Your task to perform on an android device: change the clock display to show seconds Image 0: 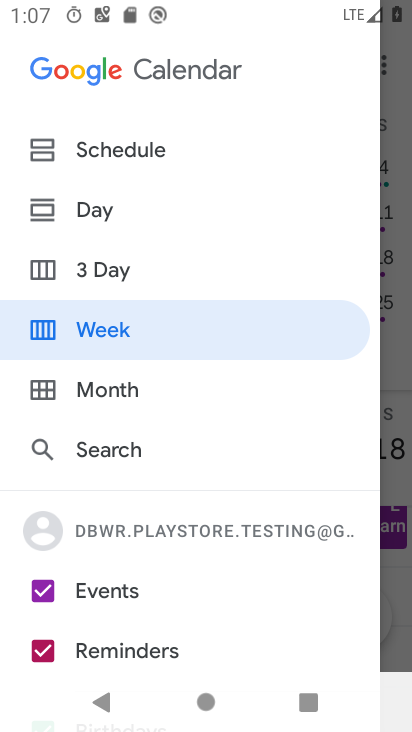
Step 0: press home button
Your task to perform on an android device: change the clock display to show seconds Image 1: 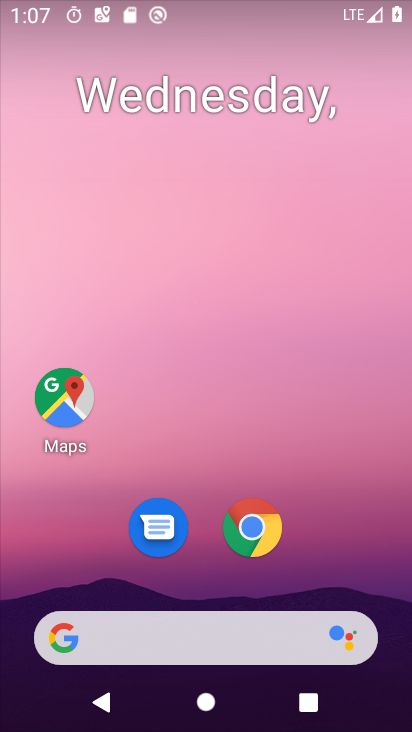
Step 1: drag from (296, 651) to (334, 3)
Your task to perform on an android device: change the clock display to show seconds Image 2: 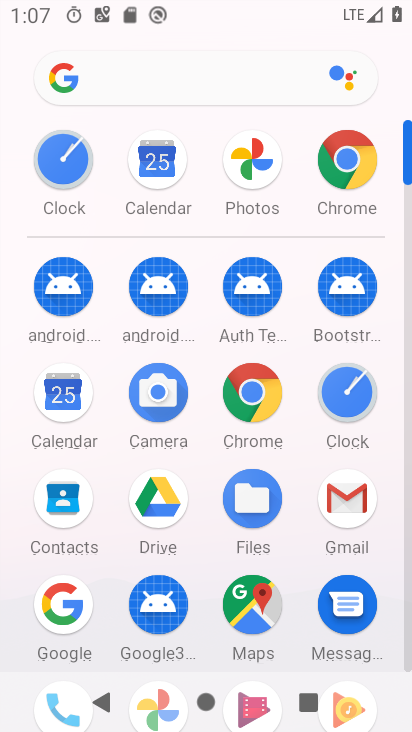
Step 2: click (333, 411)
Your task to perform on an android device: change the clock display to show seconds Image 3: 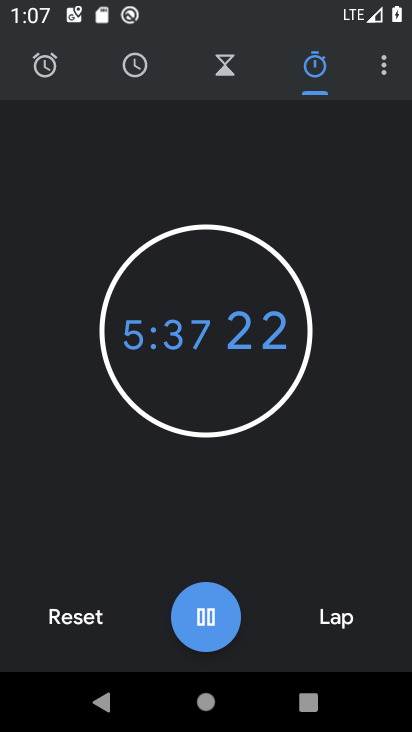
Step 3: click (391, 73)
Your task to perform on an android device: change the clock display to show seconds Image 4: 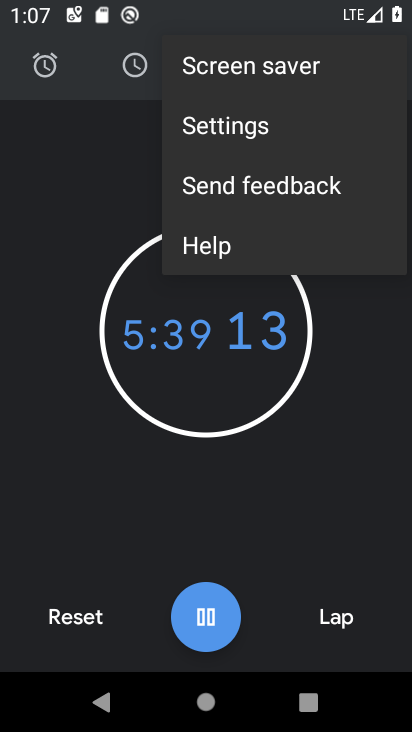
Step 4: click (263, 140)
Your task to perform on an android device: change the clock display to show seconds Image 5: 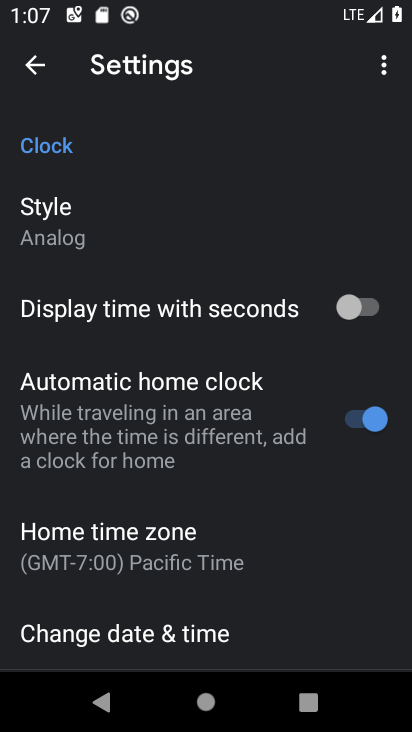
Step 5: click (365, 312)
Your task to perform on an android device: change the clock display to show seconds Image 6: 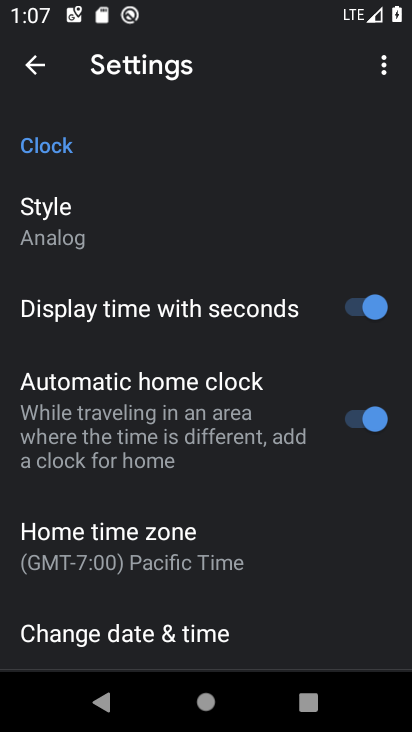
Step 6: task complete